Your task to perform on an android device: open app "Skype" (install if not already installed) and go to login screen Image 0: 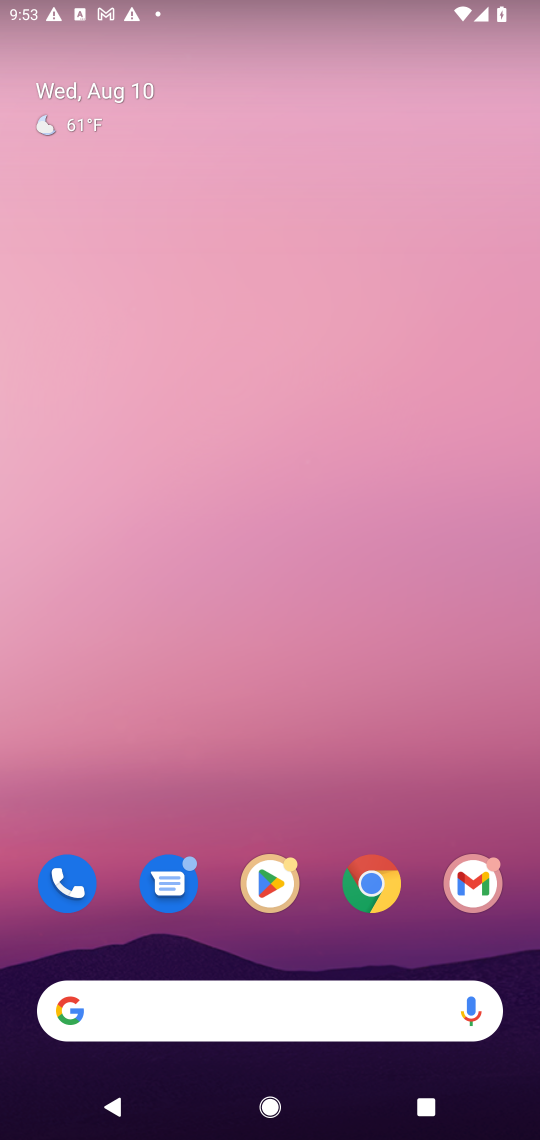
Step 0: click (263, 866)
Your task to perform on an android device: open app "Skype" (install if not already installed) and go to login screen Image 1: 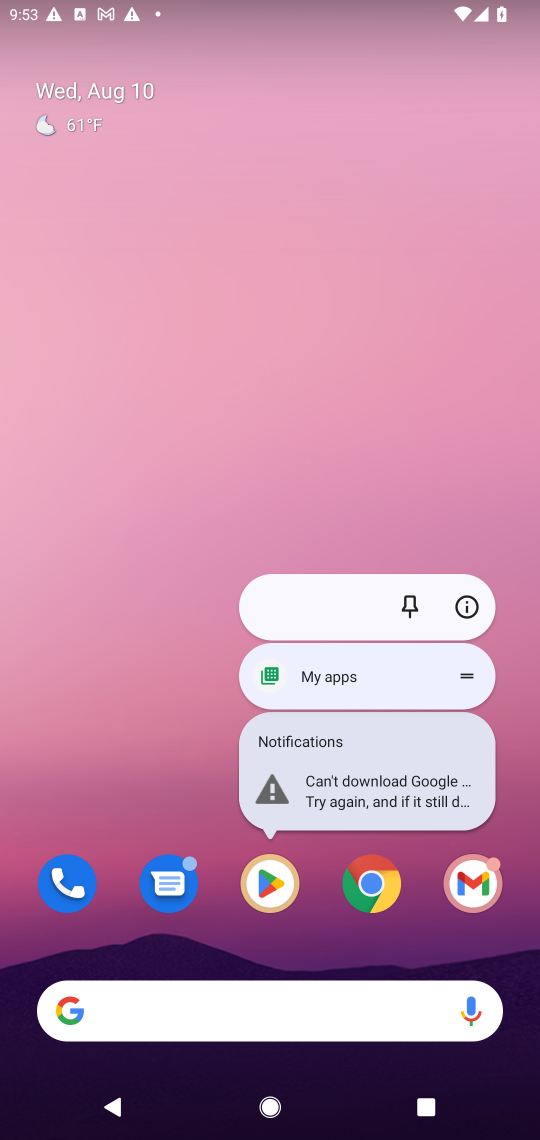
Step 1: click (272, 874)
Your task to perform on an android device: open app "Skype" (install if not already installed) and go to login screen Image 2: 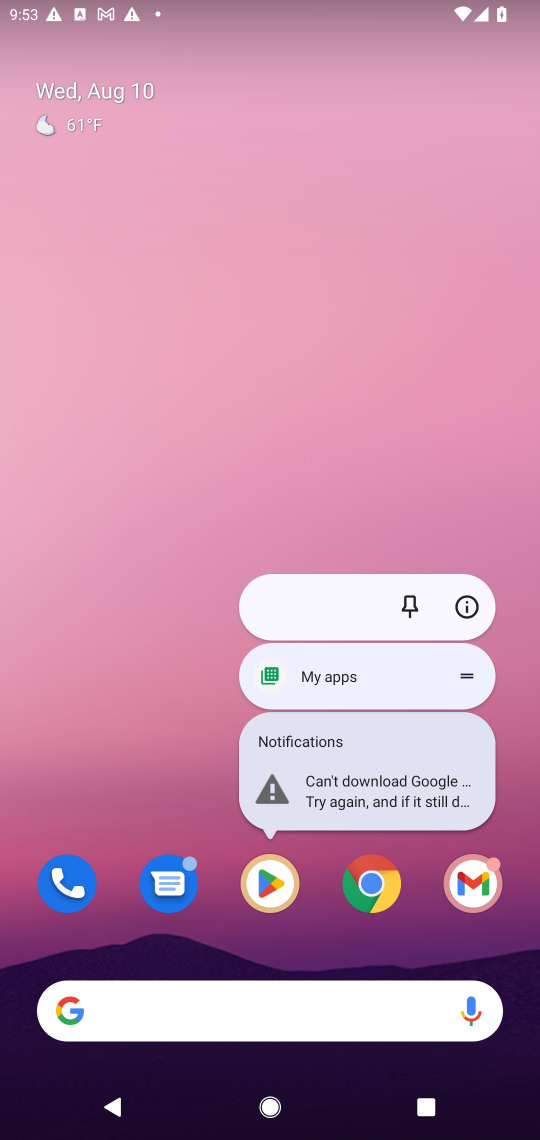
Step 2: click (272, 879)
Your task to perform on an android device: open app "Skype" (install if not already installed) and go to login screen Image 3: 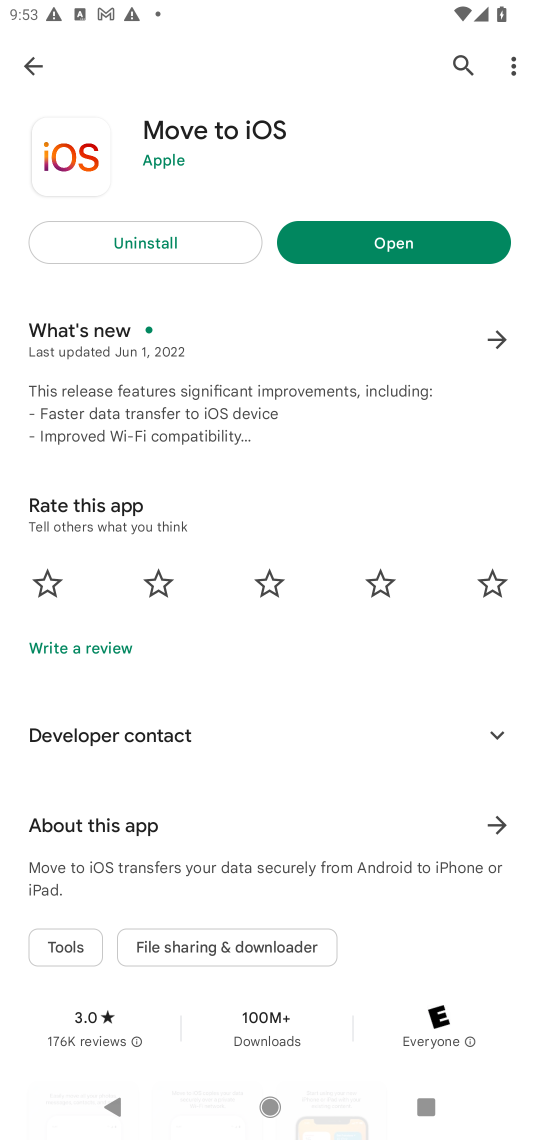
Step 3: click (458, 69)
Your task to perform on an android device: open app "Skype" (install if not already installed) and go to login screen Image 4: 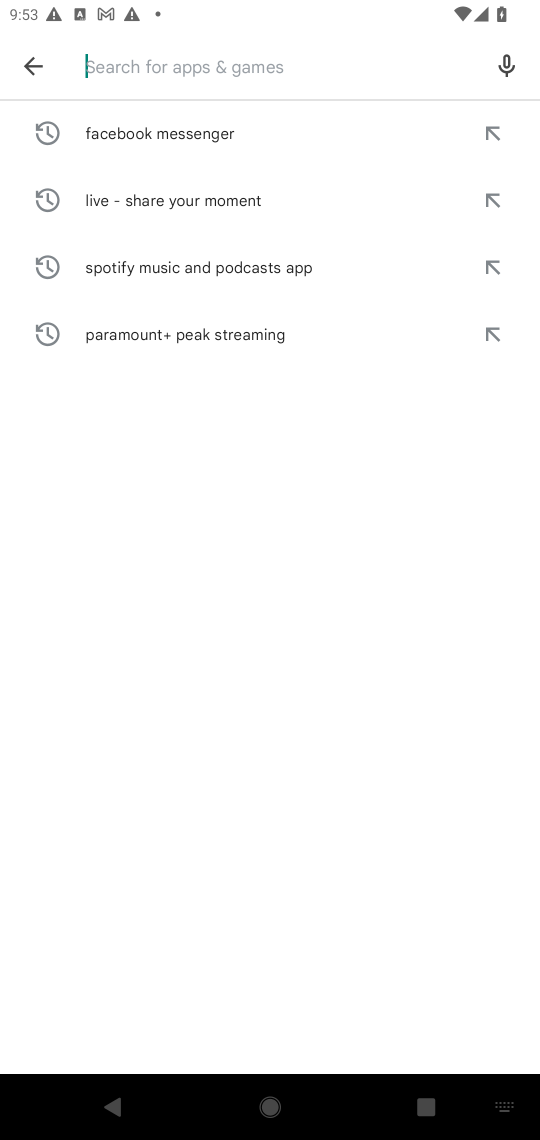
Step 4: type "Skype"
Your task to perform on an android device: open app "Skype" (install if not already installed) and go to login screen Image 5: 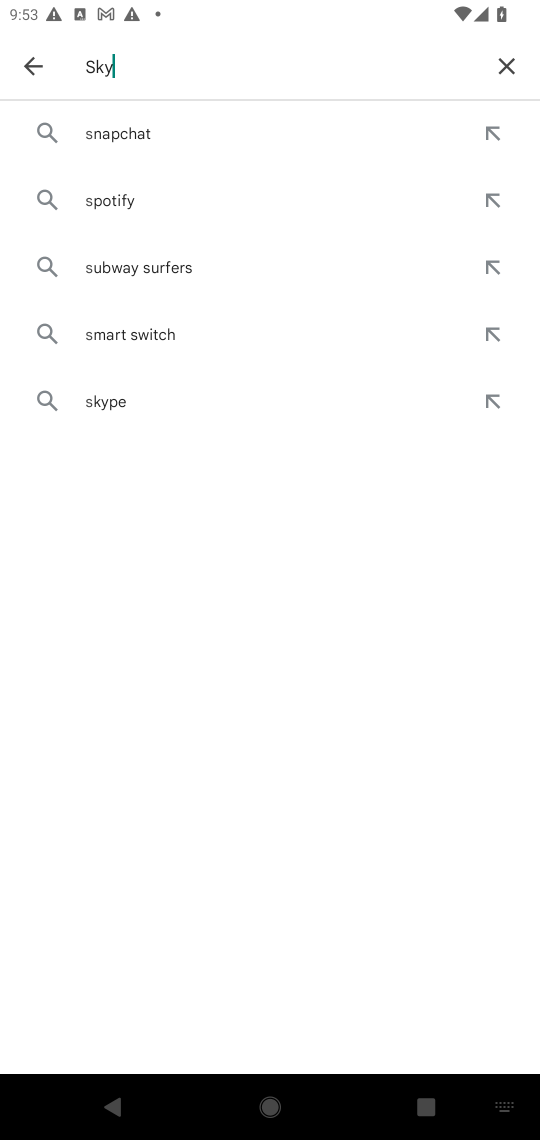
Step 5: type ""
Your task to perform on an android device: open app "Skype" (install if not already installed) and go to login screen Image 6: 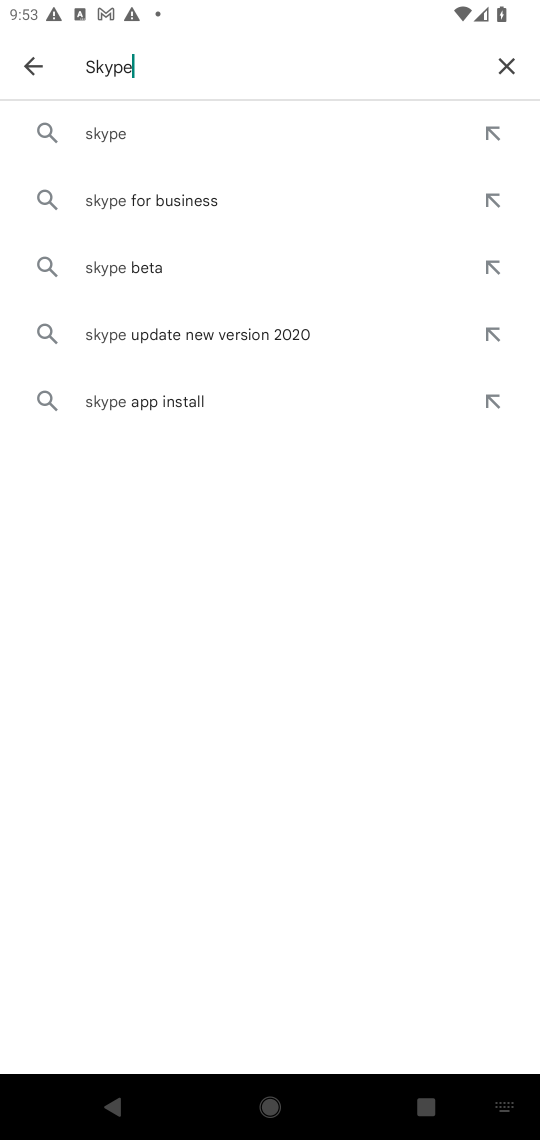
Step 6: click (178, 117)
Your task to perform on an android device: open app "Skype" (install if not already installed) and go to login screen Image 7: 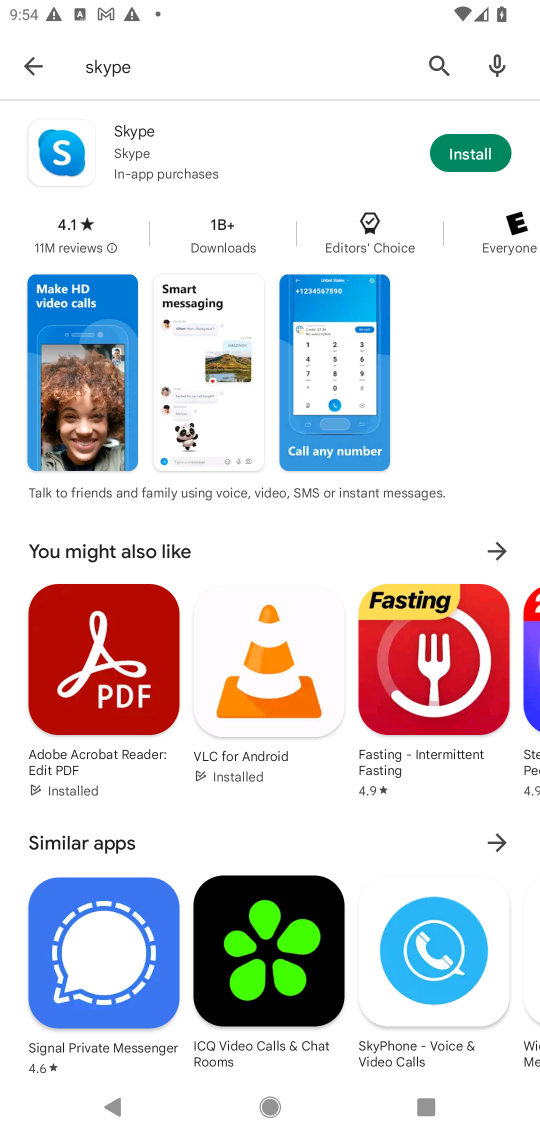
Step 7: click (471, 141)
Your task to perform on an android device: open app "Skype" (install if not already installed) and go to login screen Image 8: 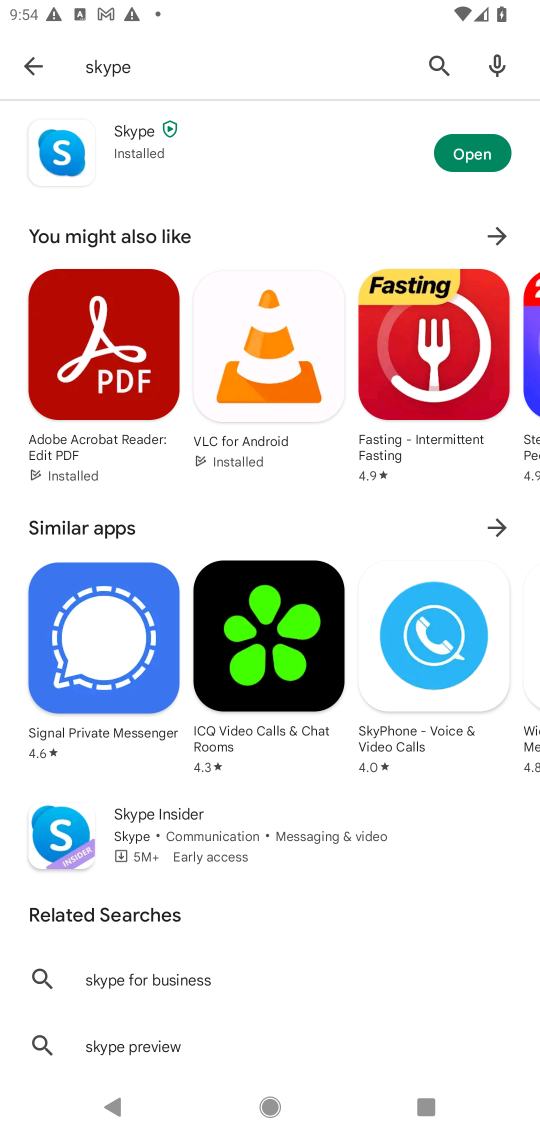
Step 8: click (453, 154)
Your task to perform on an android device: open app "Skype" (install if not already installed) and go to login screen Image 9: 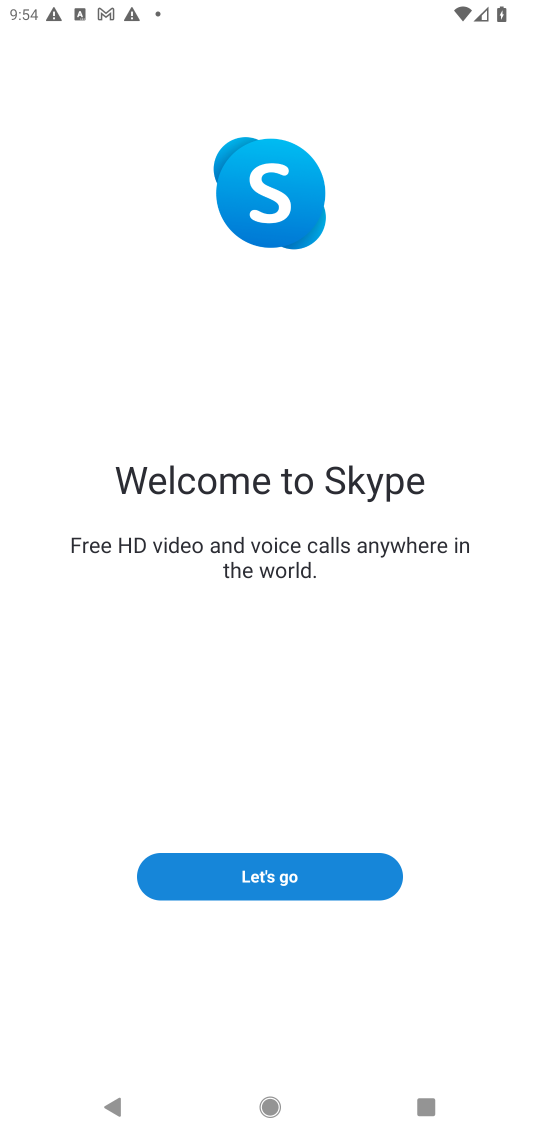
Step 9: task complete